Your task to perform on an android device: Do I have any events this weekend? Image 0: 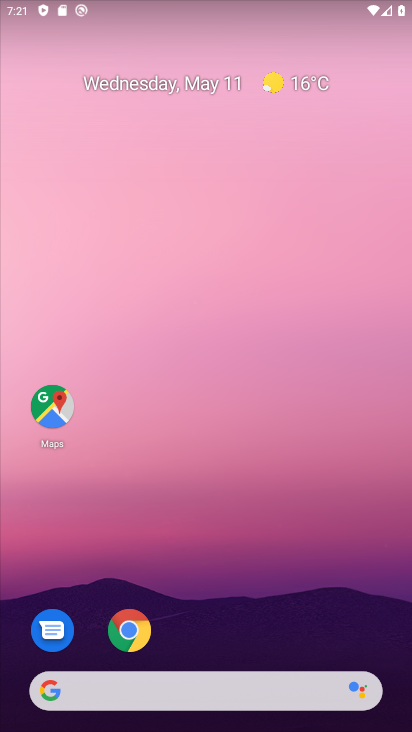
Step 0: drag from (290, 541) to (259, 24)
Your task to perform on an android device: Do I have any events this weekend? Image 1: 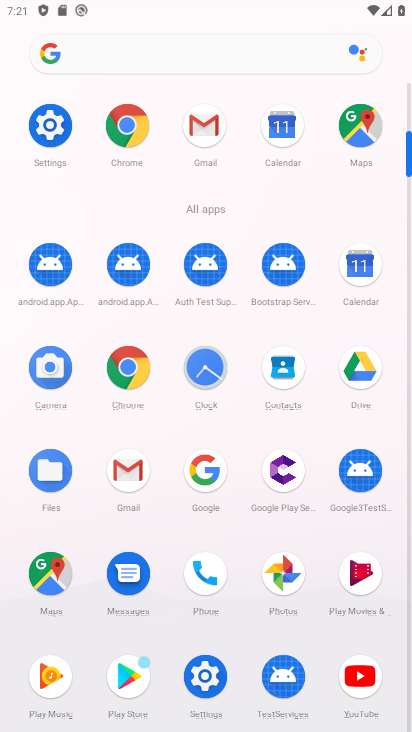
Step 1: click (361, 279)
Your task to perform on an android device: Do I have any events this weekend? Image 2: 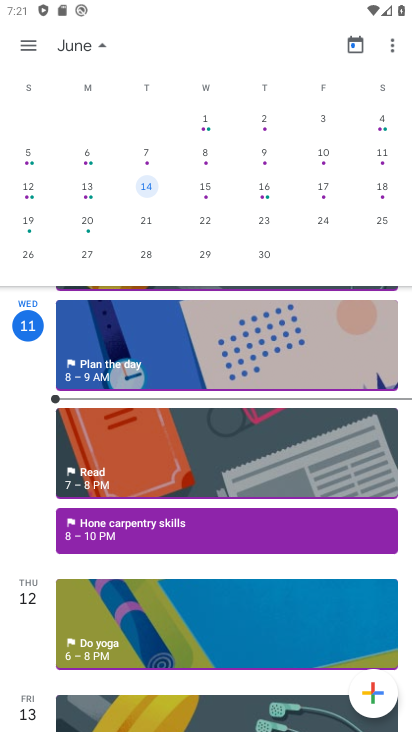
Step 2: click (262, 192)
Your task to perform on an android device: Do I have any events this weekend? Image 3: 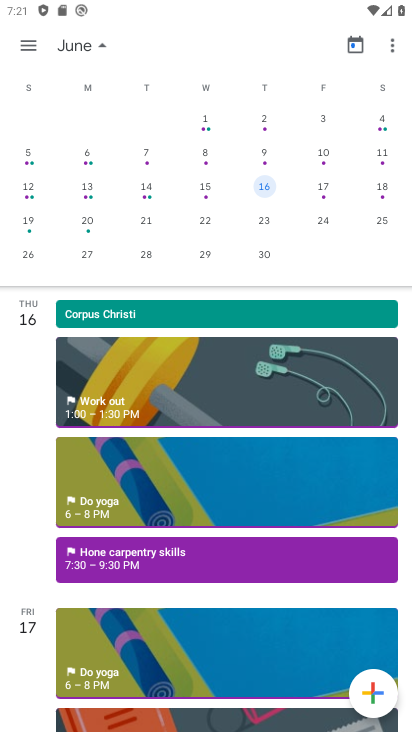
Step 3: task complete